Your task to perform on an android device: Open Youtube and go to "Your channel" Image 0: 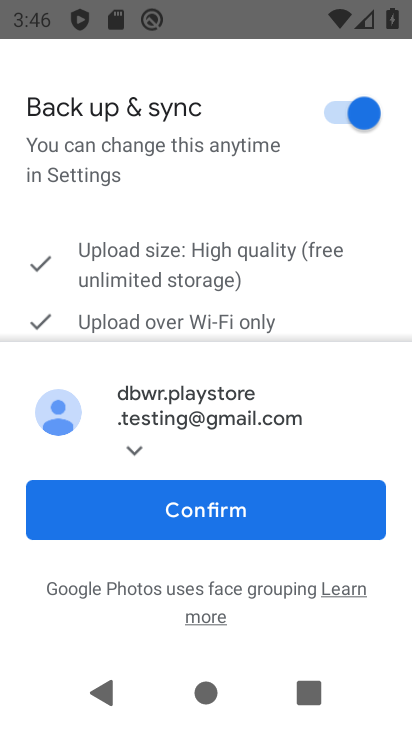
Step 0: press home button
Your task to perform on an android device: Open Youtube and go to "Your channel" Image 1: 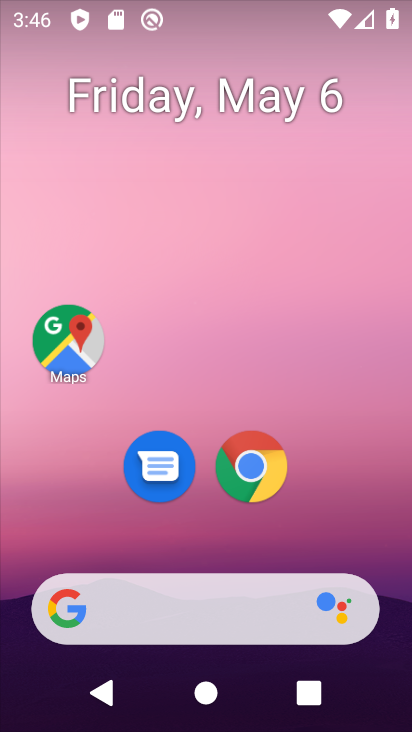
Step 1: drag from (385, 528) to (281, 4)
Your task to perform on an android device: Open Youtube and go to "Your channel" Image 2: 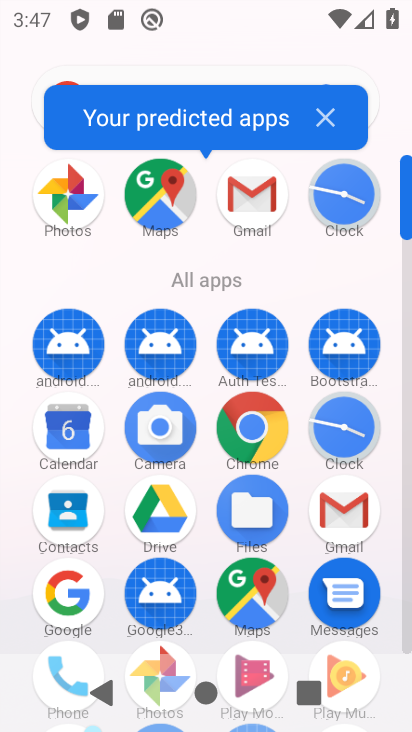
Step 2: drag from (303, 276) to (206, 17)
Your task to perform on an android device: Open Youtube and go to "Your channel" Image 3: 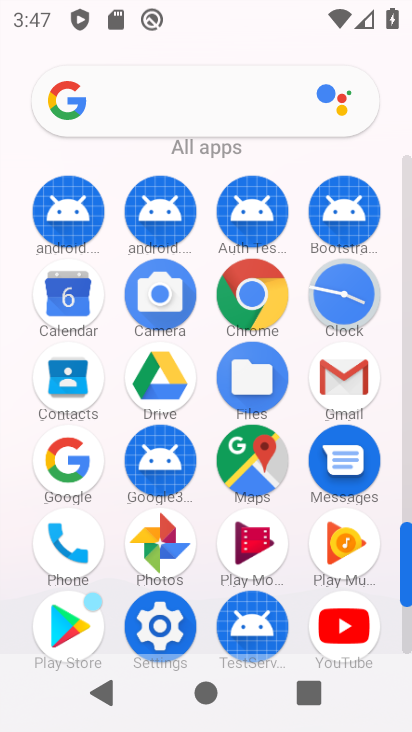
Step 3: click (345, 627)
Your task to perform on an android device: Open Youtube and go to "Your channel" Image 4: 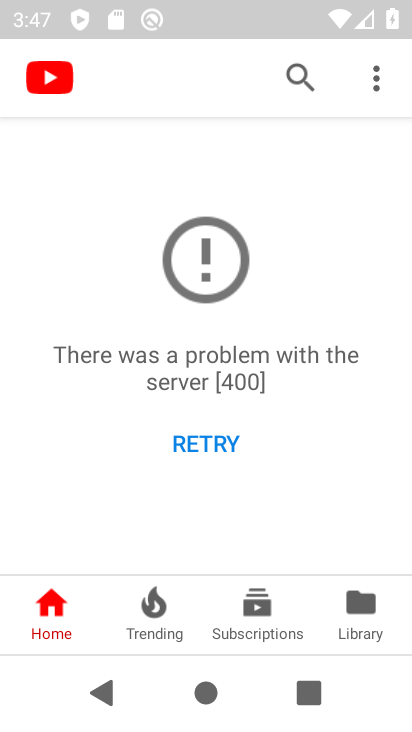
Step 4: click (219, 441)
Your task to perform on an android device: Open Youtube and go to "Your channel" Image 5: 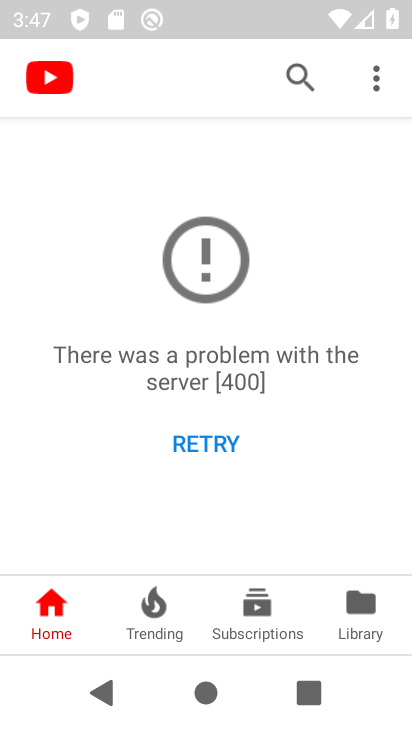
Step 5: click (219, 441)
Your task to perform on an android device: Open Youtube and go to "Your channel" Image 6: 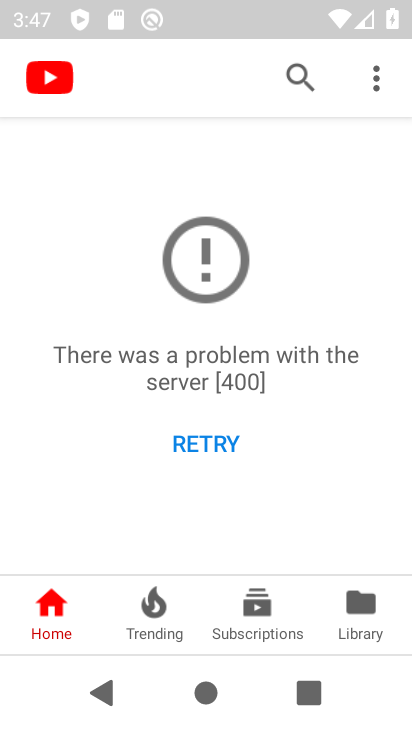
Step 6: click (219, 441)
Your task to perform on an android device: Open Youtube and go to "Your channel" Image 7: 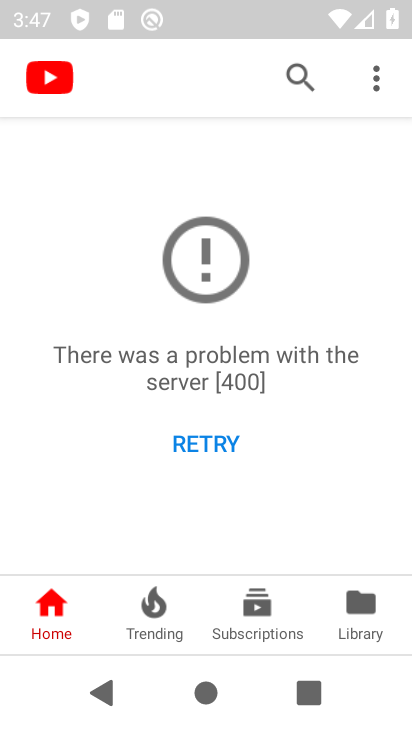
Step 7: click (356, 618)
Your task to perform on an android device: Open Youtube and go to "Your channel" Image 8: 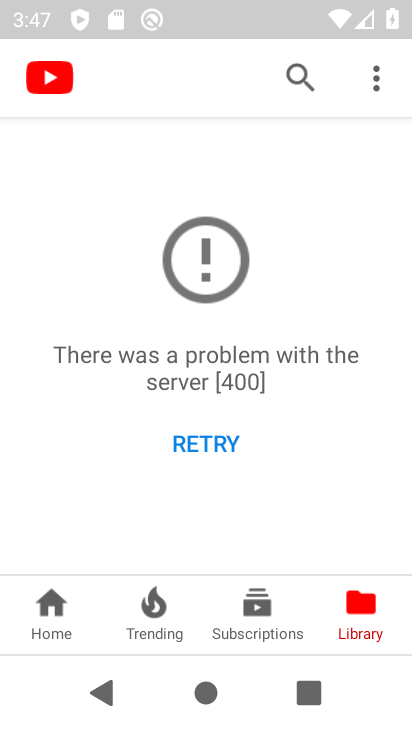
Step 8: click (194, 445)
Your task to perform on an android device: Open Youtube and go to "Your channel" Image 9: 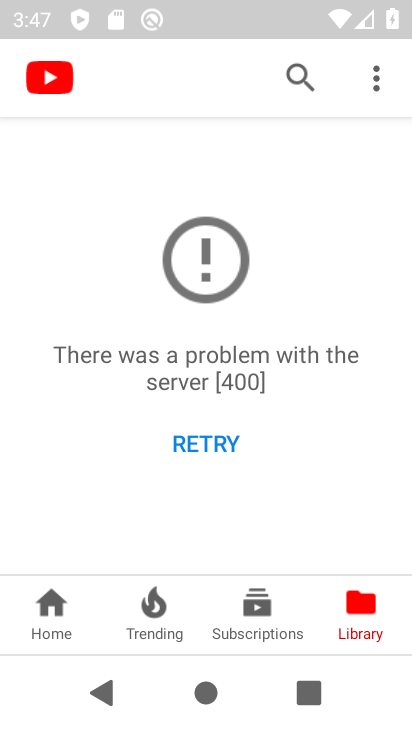
Step 9: task complete